Your task to perform on an android device: Go to location settings Image 0: 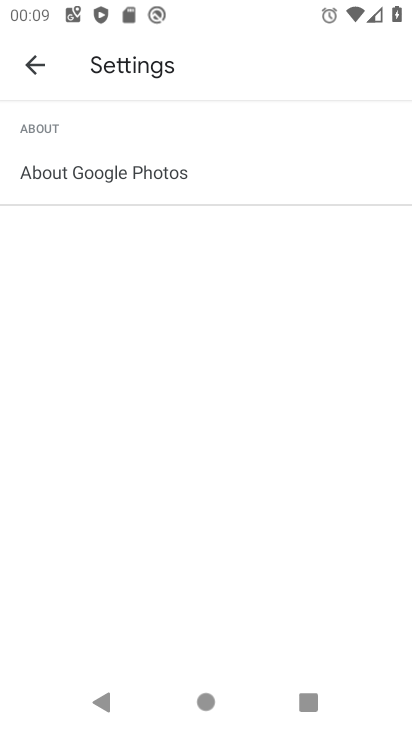
Step 0: press home button
Your task to perform on an android device: Go to location settings Image 1: 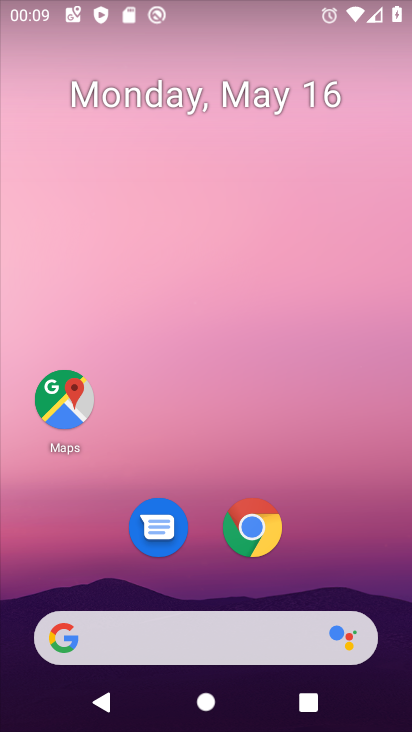
Step 1: drag from (361, 548) to (328, 71)
Your task to perform on an android device: Go to location settings Image 2: 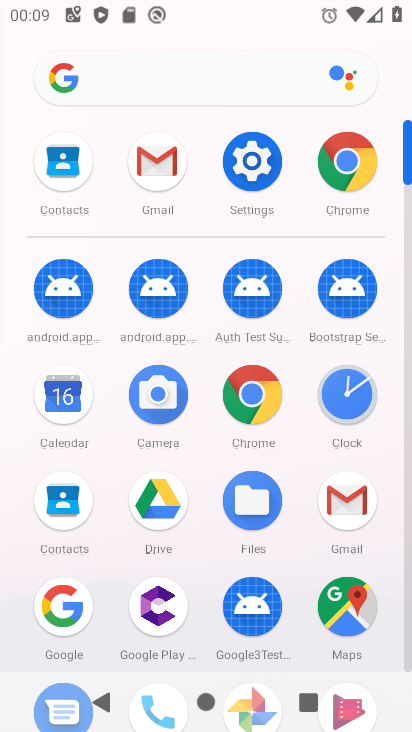
Step 2: click (259, 180)
Your task to perform on an android device: Go to location settings Image 3: 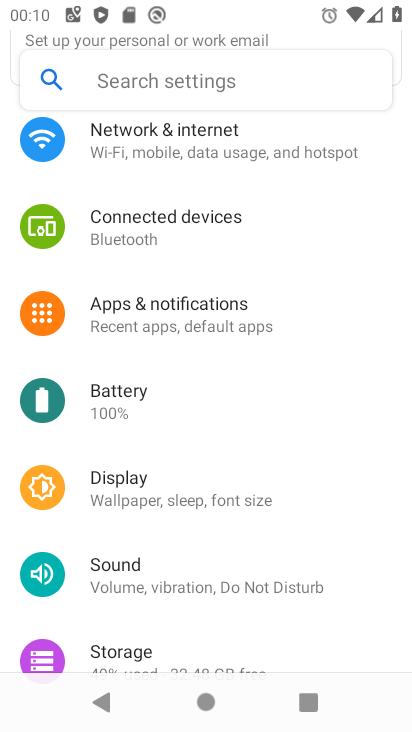
Step 3: click (221, 329)
Your task to perform on an android device: Go to location settings Image 4: 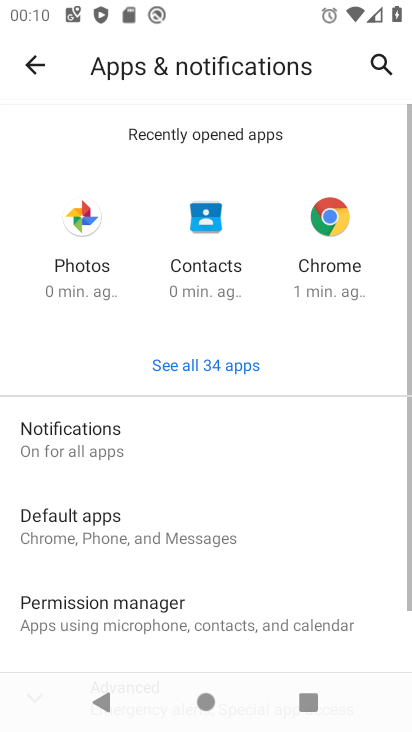
Step 4: drag from (216, 521) to (272, 93)
Your task to perform on an android device: Go to location settings Image 5: 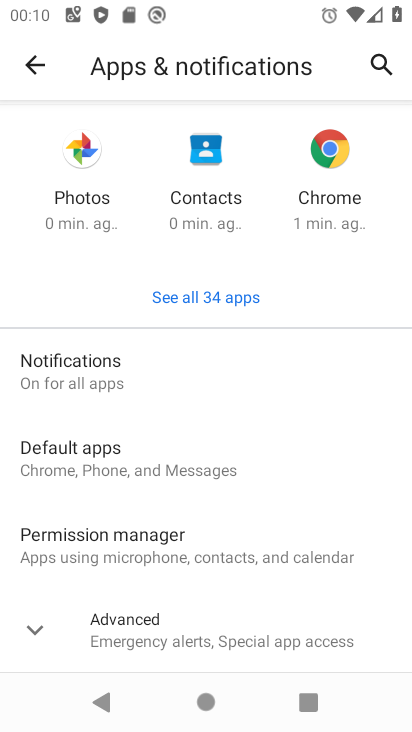
Step 5: drag from (230, 510) to (271, 293)
Your task to perform on an android device: Go to location settings Image 6: 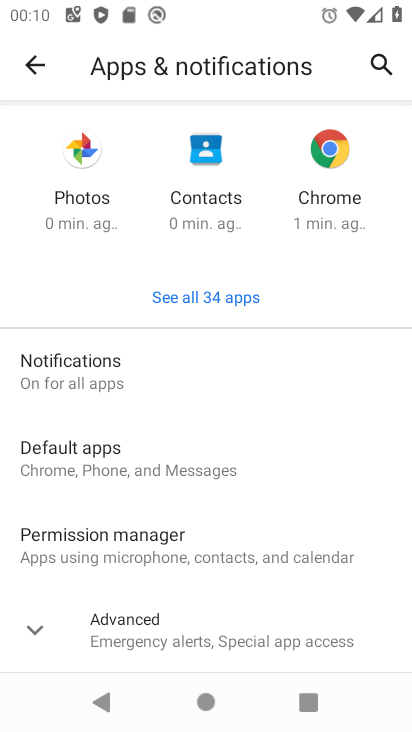
Step 6: click (187, 606)
Your task to perform on an android device: Go to location settings Image 7: 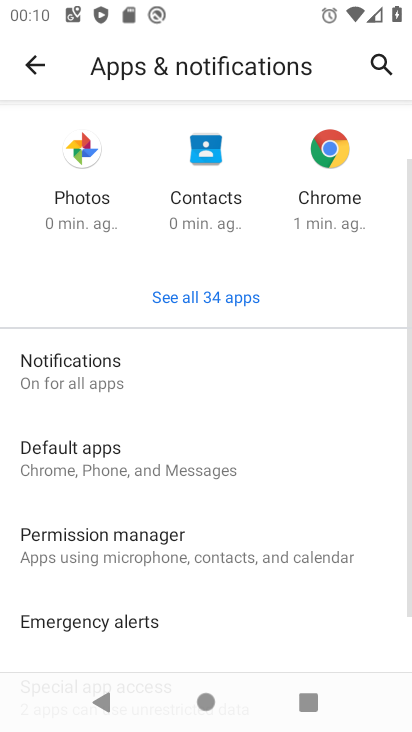
Step 7: drag from (215, 553) to (235, 335)
Your task to perform on an android device: Go to location settings Image 8: 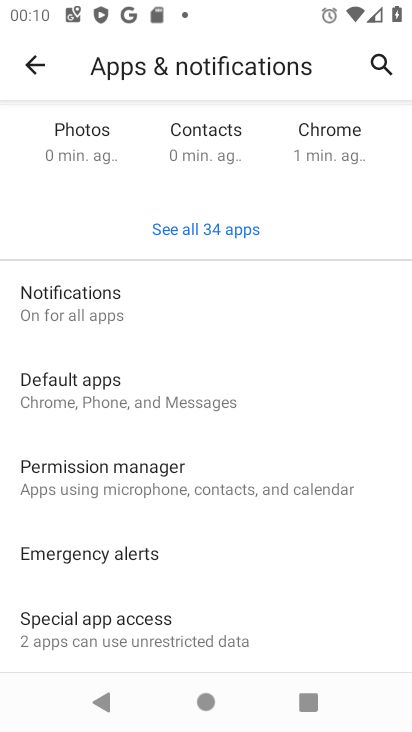
Step 8: click (70, 325)
Your task to perform on an android device: Go to location settings Image 9: 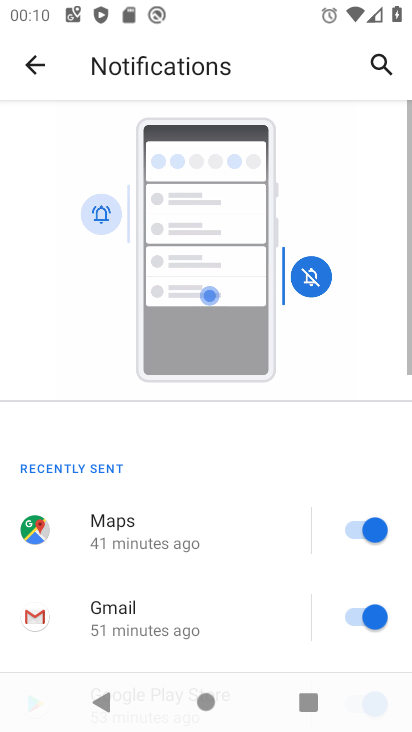
Step 9: press home button
Your task to perform on an android device: Go to location settings Image 10: 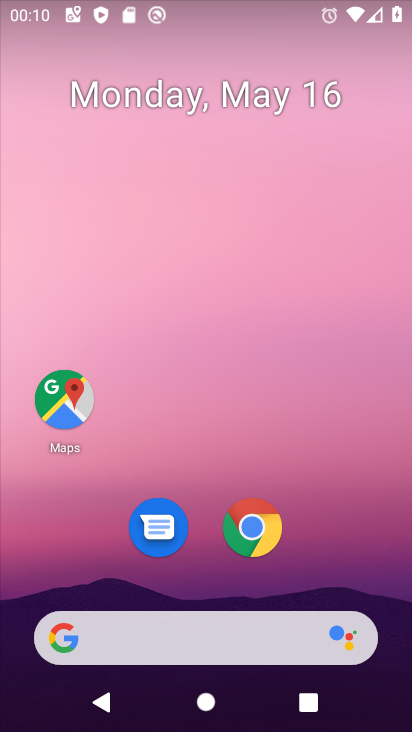
Step 10: drag from (327, 553) to (307, 79)
Your task to perform on an android device: Go to location settings Image 11: 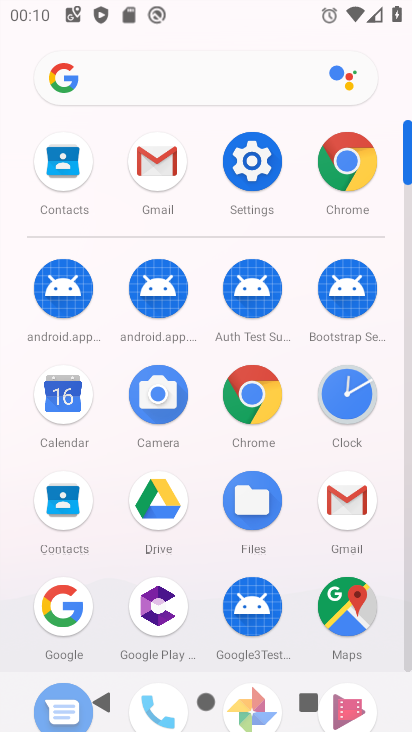
Step 11: click (257, 153)
Your task to perform on an android device: Go to location settings Image 12: 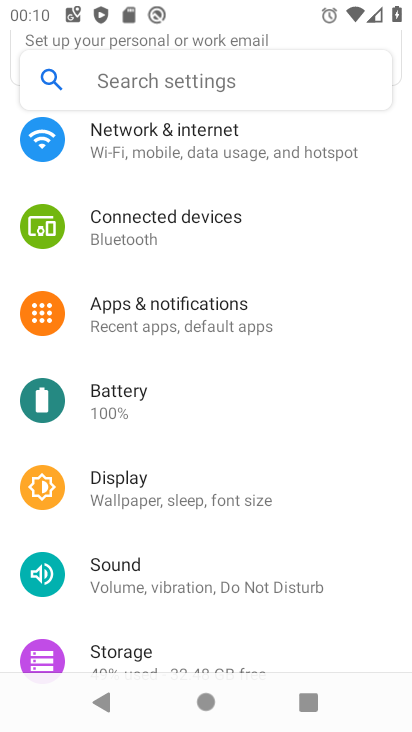
Step 12: drag from (220, 658) to (225, 143)
Your task to perform on an android device: Go to location settings Image 13: 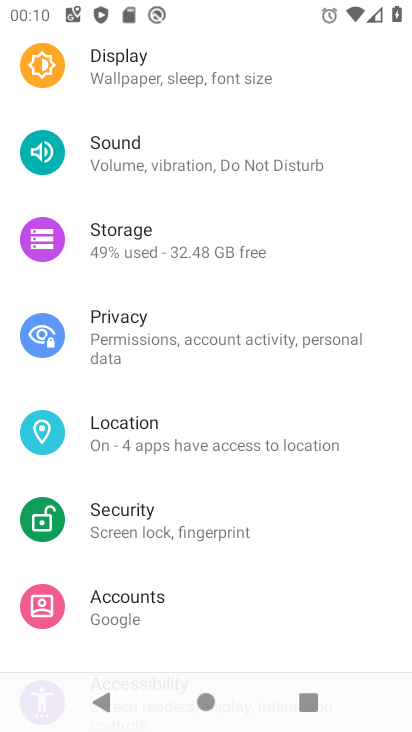
Step 13: click (219, 413)
Your task to perform on an android device: Go to location settings Image 14: 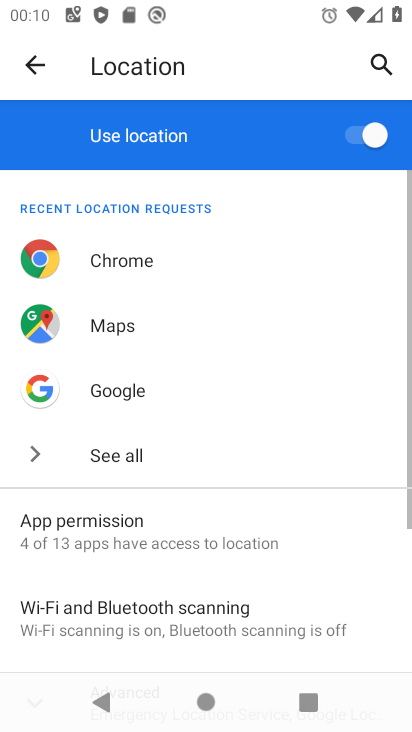
Step 14: drag from (232, 505) to (264, 250)
Your task to perform on an android device: Go to location settings Image 15: 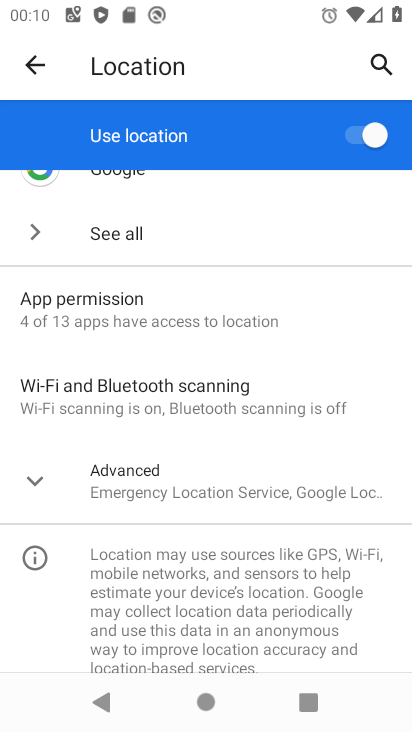
Step 15: click (215, 449)
Your task to perform on an android device: Go to location settings Image 16: 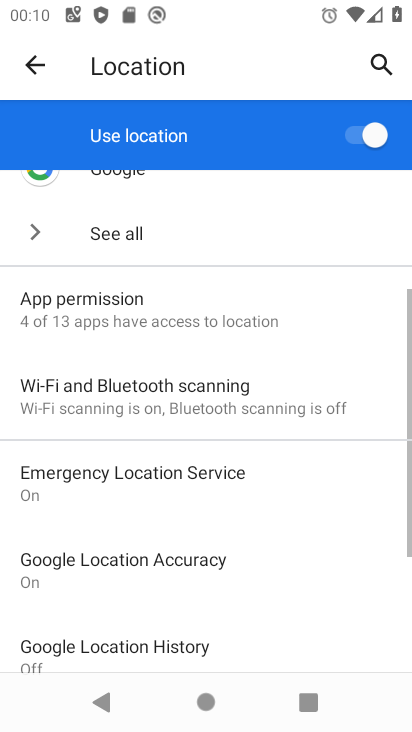
Step 16: drag from (282, 449) to (283, 226)
Your task to perform on an android device: Go to location settings Image 17: 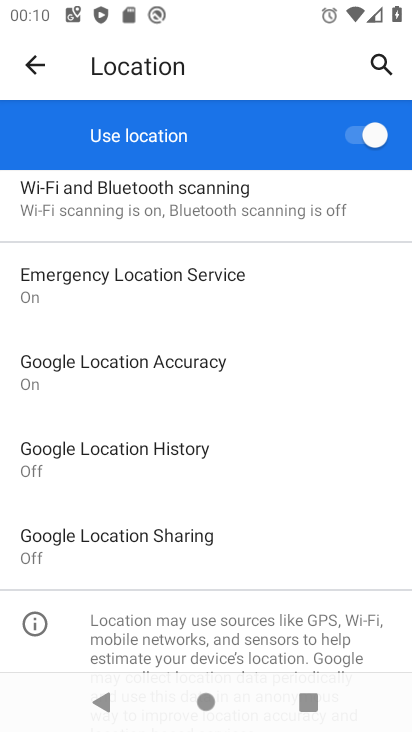
Step 17: click (197, 460)
Your task to perform on an android device: Go to location settings Image 18: 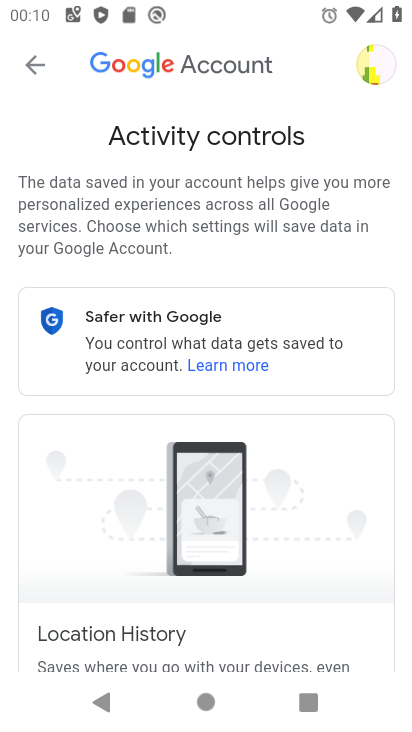
Step 18: drag from (321, 529) to (315, 275)
Your task to perform on an android device: Go to location settings Image 19: 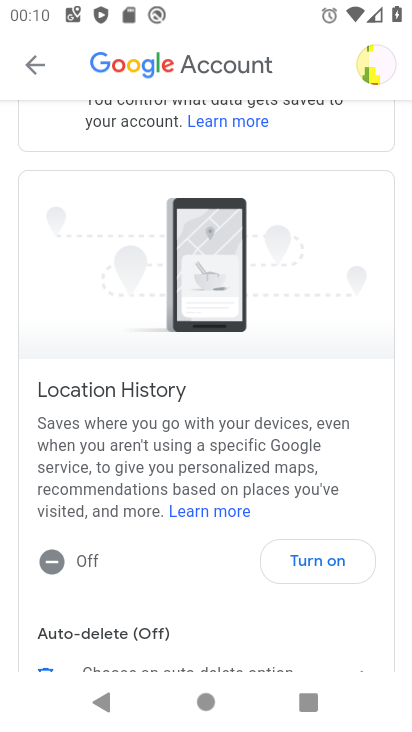
Step 19: click (330, 559)
Your task to perform on an android device: Go to location settings Image 20: 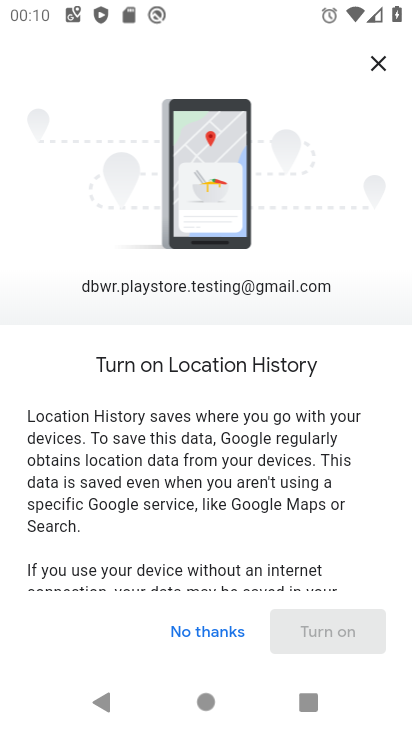
Step 20: task complete